Your task to perform on an android device: turn off smart reply in the gmail app Image 0: 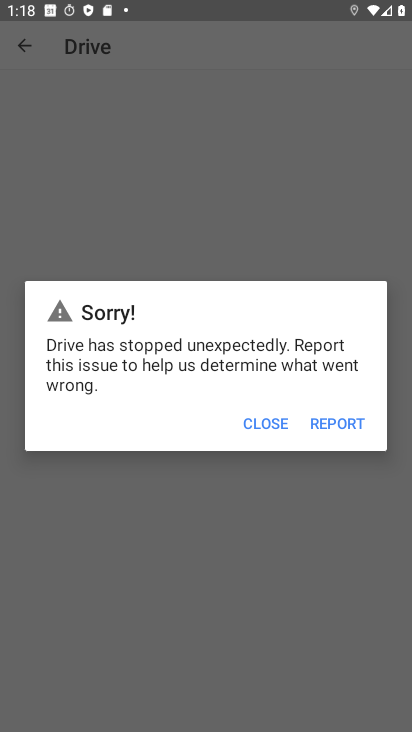
Step 0: press home button
Your task to perform on an android device: turn off smart reply in the gmail app Image 1: 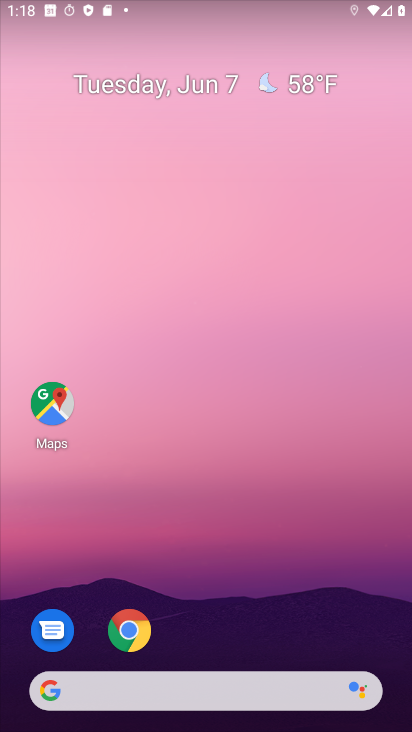
Step 1: drag from (223, 662) to (262, 130)
Your task to perform on an android device: turn off smart reply in the gmail app Image 2: 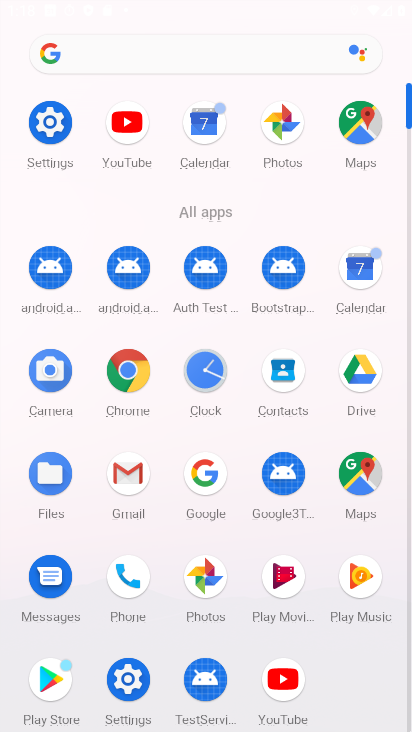
Step 2: click (123, 496)
Your task to perform on an android device: turn off smart reply in the gmail app Image 3: 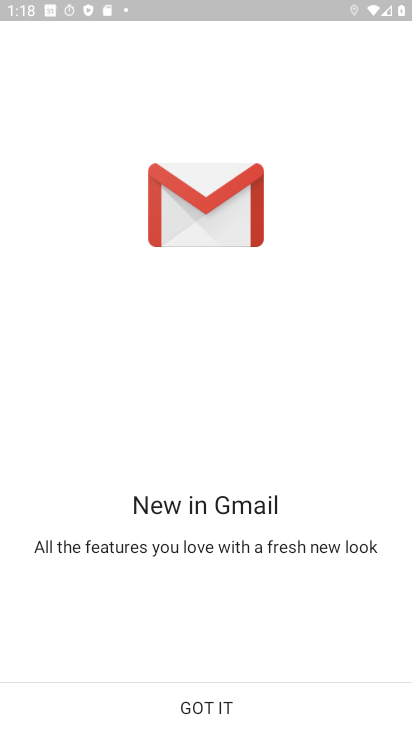
Step 3: click (222, 711)
Your task to perform on an android device: turn off smart reply in the gmail app Image 4: 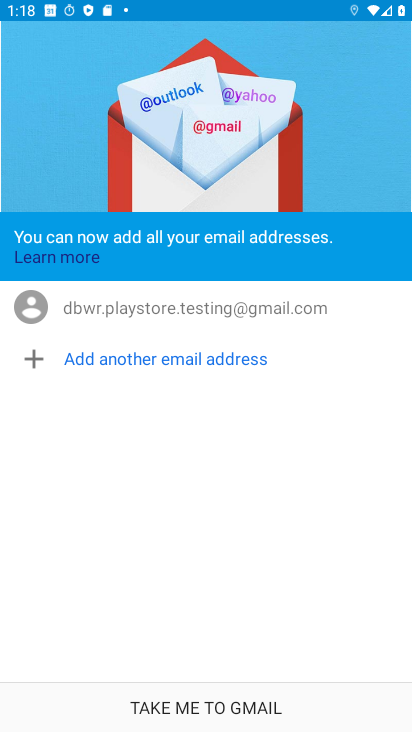
Step 4: click (222, 711)
Your task to perform on an android device: turn off smart reply in the gmail app Image 5: 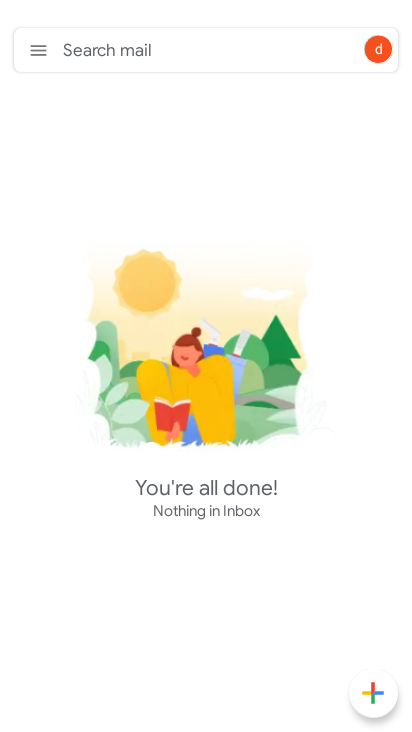
Step 5: click (37, 56)
Your task to perform on an android device: turn off smart reply in the gmail app Image 6: 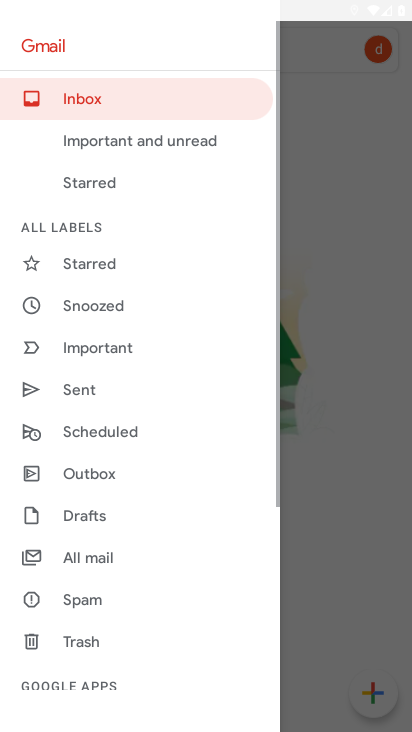
Step 6: drag from (102, 653) to (195, 145)
Your task to perform on an android device: turn off smart reply in the gmail app Image 7: 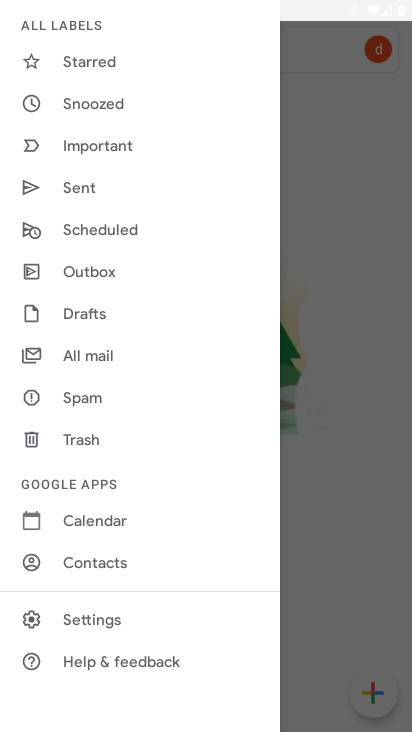
Step 7: click (96, 621)
Your task to perform on an android device: turn off smart reply in the gmail app Image 8: 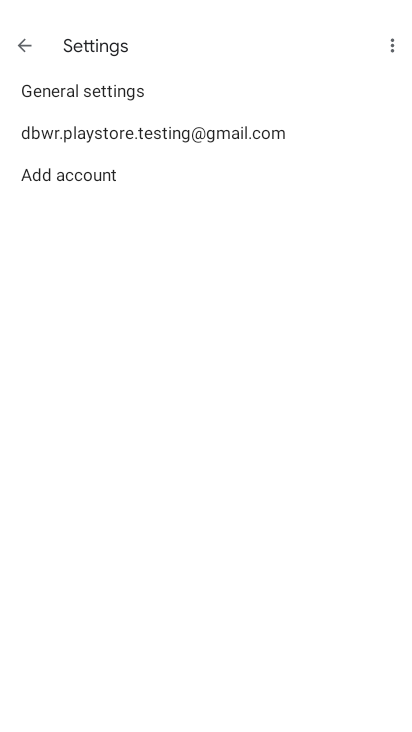
Step 8: click (151, 135)
Your task to perform on an android device: turn off smart reply in the gmail app Image 9: 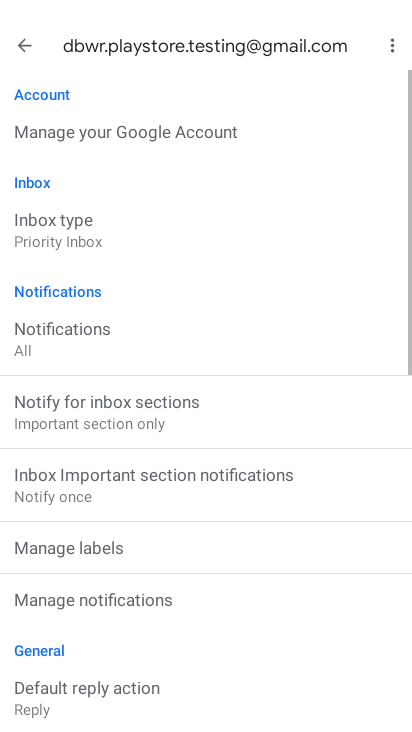
Step 9: drag from (197, 591) to (267, 255)
Your task to perform on an android device: turn off smart reply in the gmail app Image 10: 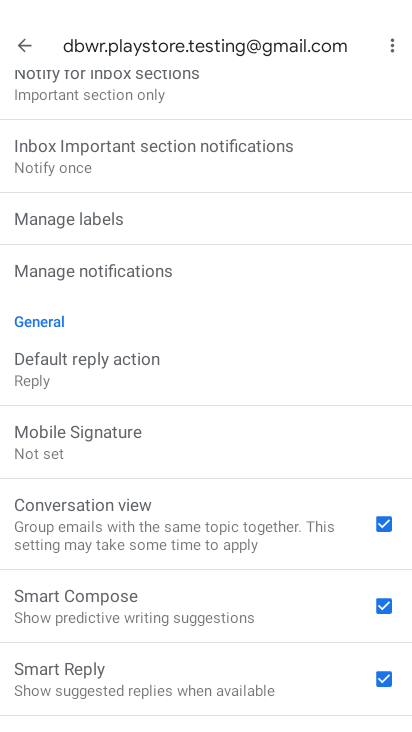
Step 10: drag from (184, 561) to (242, 265)
Your task to perform on an android device: turn off smart reply in the gmail app Image 11: 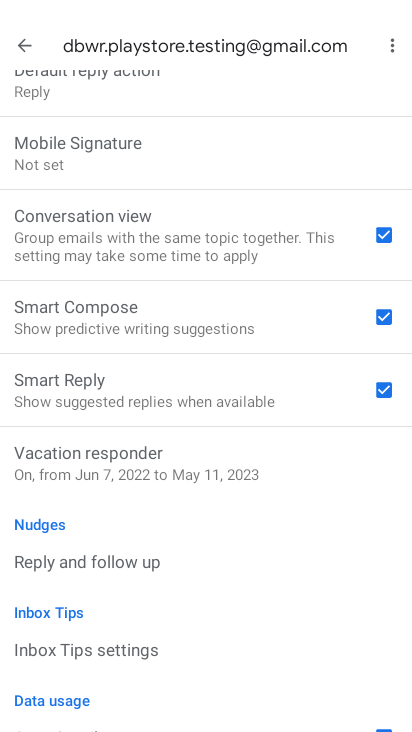
Step 11: click (362, 385)
Your task to perform on an android device: turn off smart reply in the gmail app Image 12: 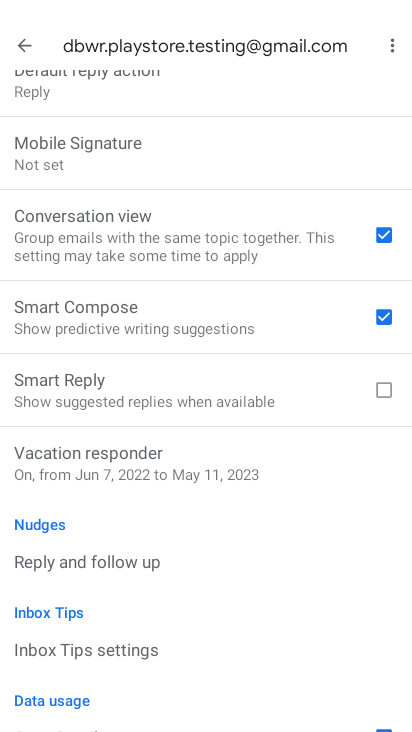
Step 12: task complete